Your task to perform on an android device: open a bookmark in the chrome app Image 0: 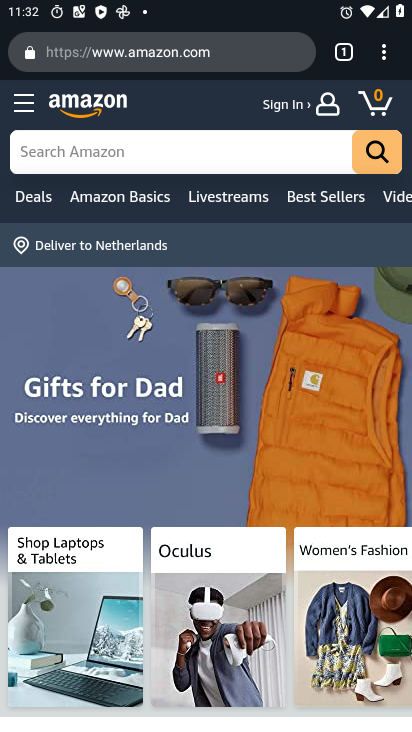
Step 0: press home button
Your task to perform on an android device: open a bookmark in the chrome app Image 1: 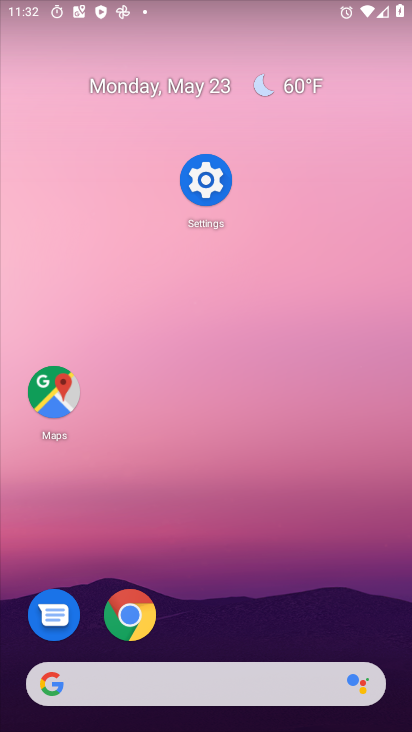
Step 1: click (139, 613)
Your task to perform on an android device: open a bookmark in the chrome app Image 2: 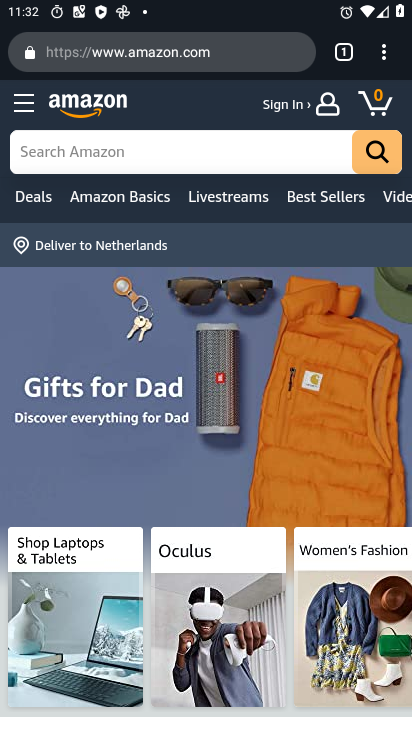
Step 2: click (377, 57)
Your task to perform on an android device: open a bookmark in the chrome app Image 3: 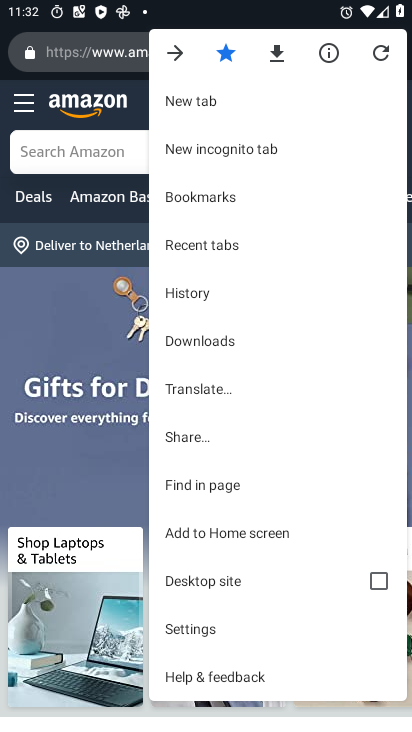
Step 3: click (212, 194)
Your task to perform on an android device: open a bookmark in the chrome app Image 4: 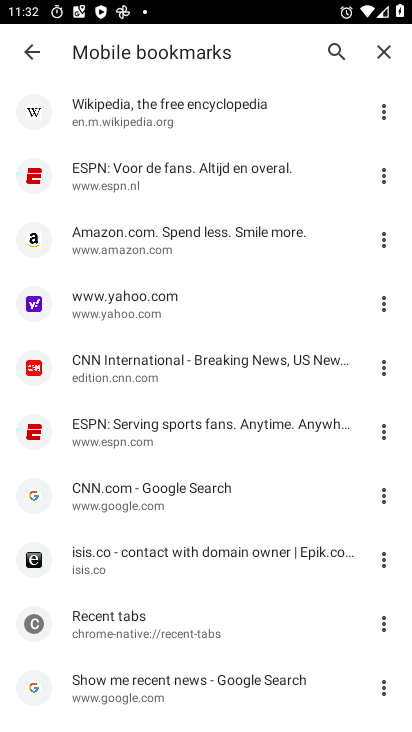
Step 4: click (121, 236)
Your task to perform on an android device: open a bookmark in the chrome app Image 5: 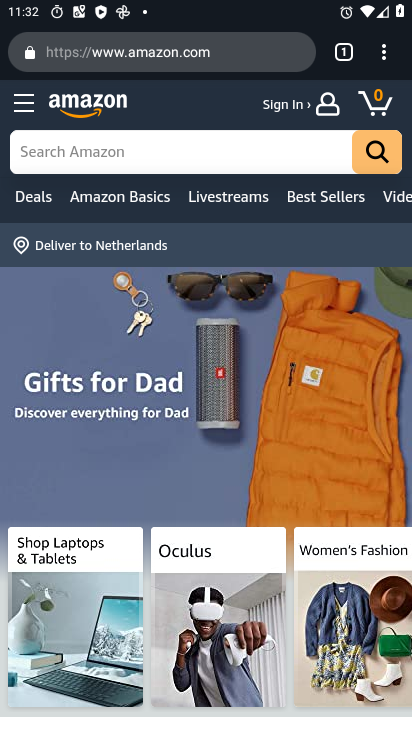
Step 5: task complete